Your task to perform on an android device: install app "Lyft - Rideshare, Bikes, Scooters & Transit" Image 0: 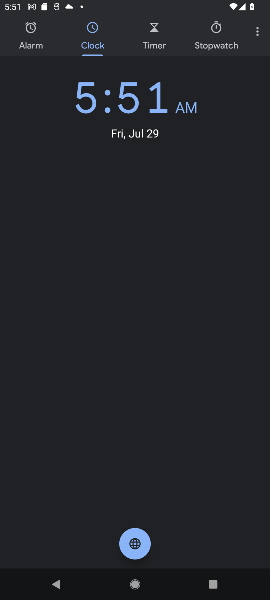
Step 0: press home button
Your task to perform on an android device: install app "Lyft - Rideshare, Bikes, Scooters & Transit" Image 1: 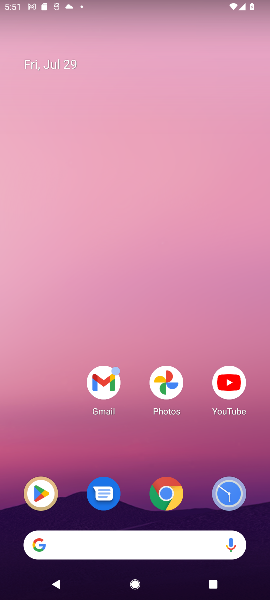
Step 1: click (42, 491)
Your task to perform on an android device: install app "Lyft - Rideshare, Bikes, Scooters & Transit" Image 2: 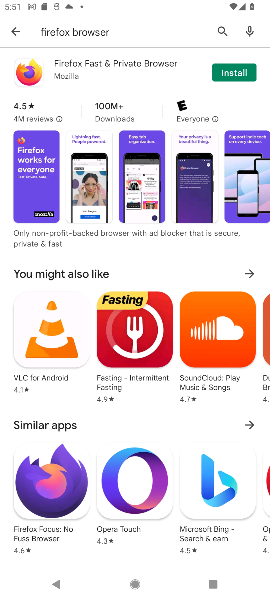
Step 2: click (222, 26)
Your task to perform on an android device: install app "Lyft - Rideshare, Bikes, Scooters & Transit" Image 3: 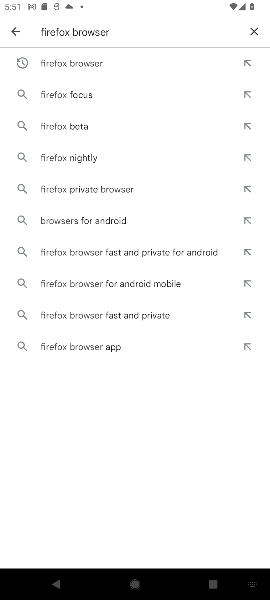
Step 3: click (256, 32)
Your task to perform on an android device: install app "Lyft - Rideshare, Bikes, Scooters & Transit" Image 4: 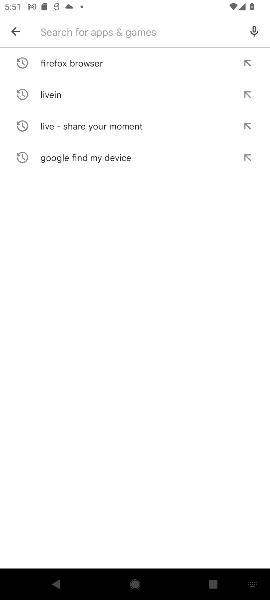
Step 4: type "Lyft - Rideshare, Bikes, Scooters & Transit"
Your task to perform on an android device: install app "Lyft - Rideshare, Bikes, Scooters & Transit" Image 5: 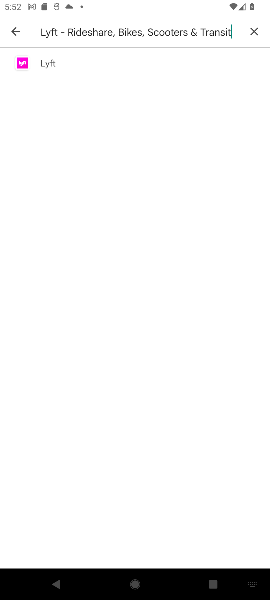
Step 5: click (51, 64)
Your task to perform on an android device: install app "Lyft - Rideshare, Bikes, Scooters & Transit" Image 6: 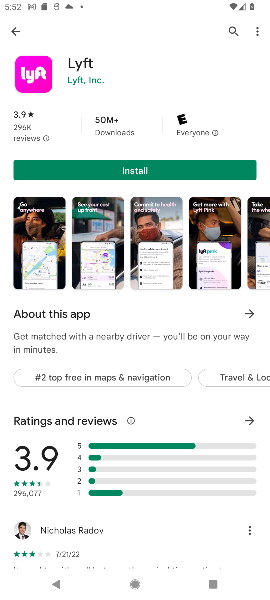
Step 6: click (127, 168)
Your task to perform on an android device: install app "Lyft - Rideshare, Bikes, Scooters & Transit" Image 7: 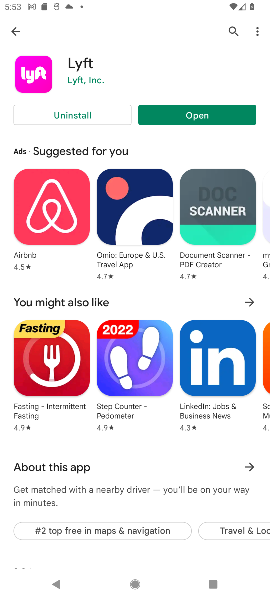
Step 7: task complete